Your task to perform on an android device: Open calendar and show me the second week of next month Image 0: 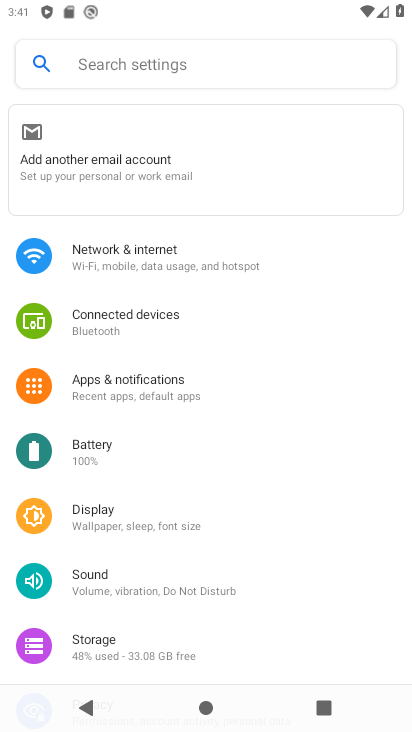
Step 0: press home button
Your task to perform on an android device: Open calendar and show me the second week of next month Image 1: 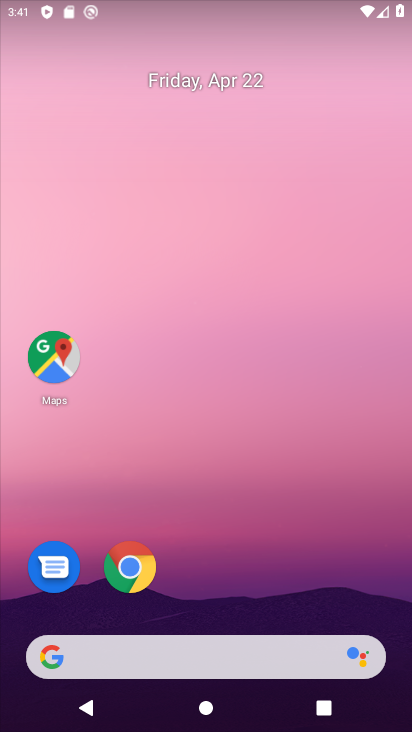
Step 1: drag from (332, 605) to (224, 198)
Your task to perform on an android device: Open calendar and show me the second week of next month Image 2: 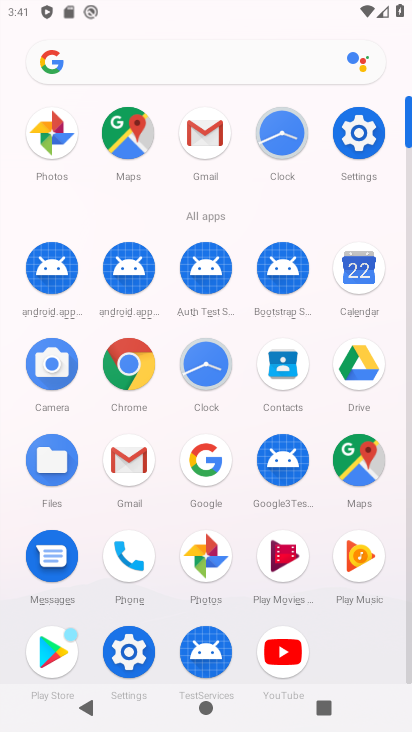
Step 2: click (345, 290)
Your task to perform on an android device: Open calendar and show me the second week of next month Image 3: 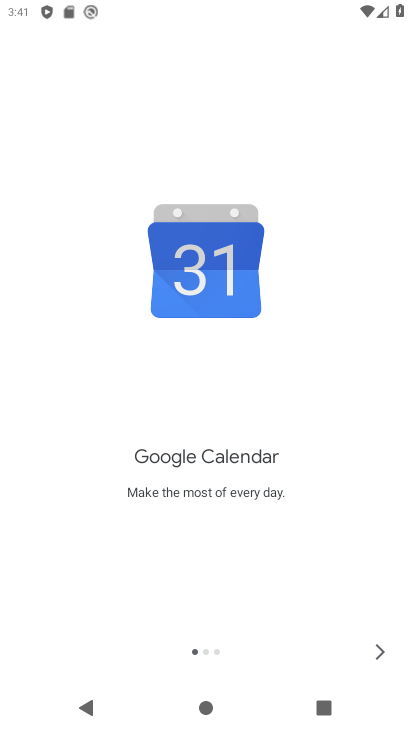
Step 3: click (380, 657)
Your task to perform on an android device: Open calendar and show me the second week of next month Image 4: 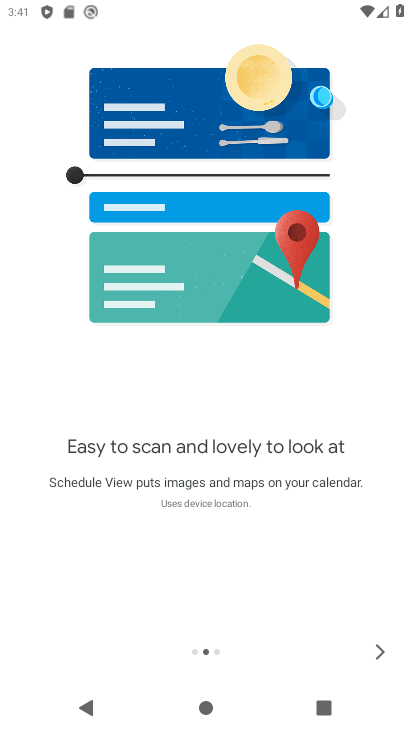
Step 4: click (380, 661)
Your task to perform on an android device: Open calendar and show me the second week of next month Image 5: 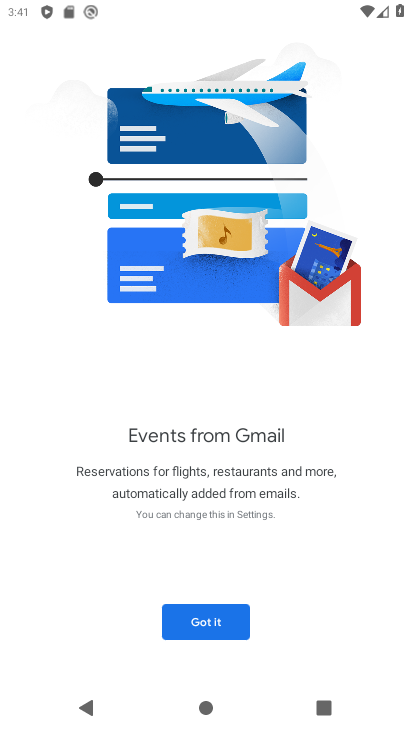
Step 5: click (225, 619)
Your task to perform on an android device: Open calendar and show me the second week of next month Image 6: 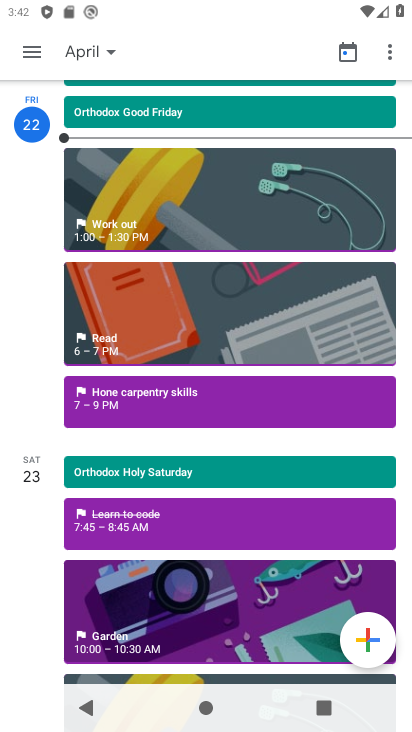
Step 6: click (90, 52)
Your task to perform on an android device: Open calendar and show me the second week of next month Image 7: 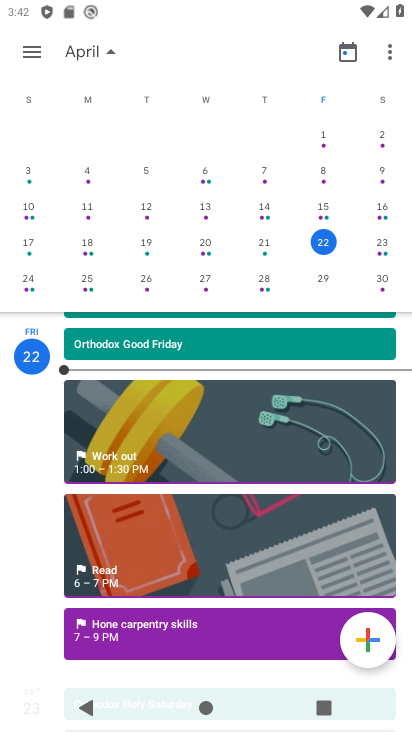
Step 7: click (33, 41)
Your task to perform on an android device: Open calendar and show me the second week of next month Image 8: 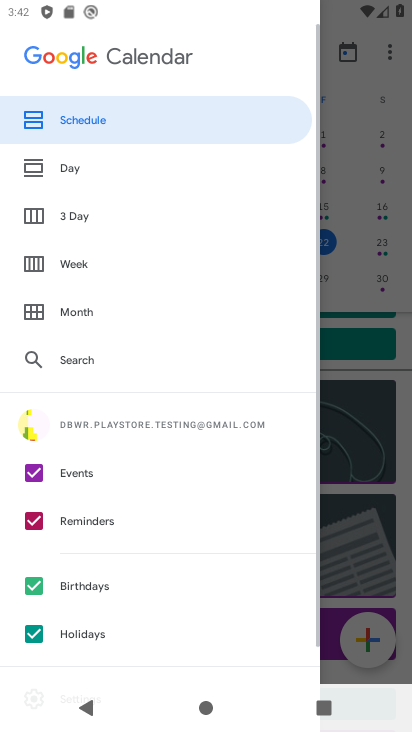
Step 8: click (102, 271)
Your task to perform on an android device: Open calendar and show me the second week of next month Image 9: 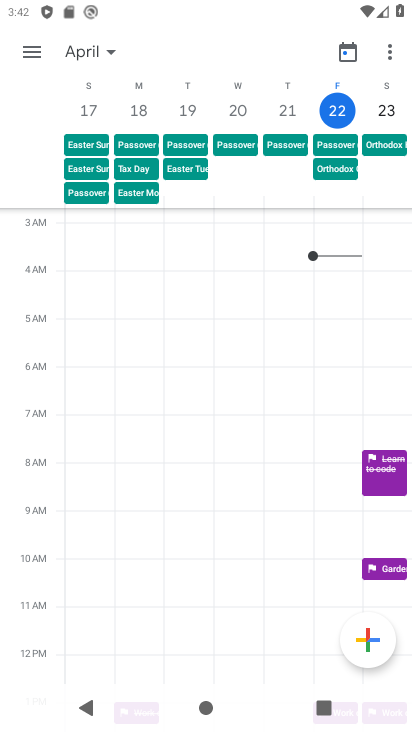
Step 9: click (110, 49)
Your task to perform on an android device: Open calendar and show me the second week of next month Image 10: 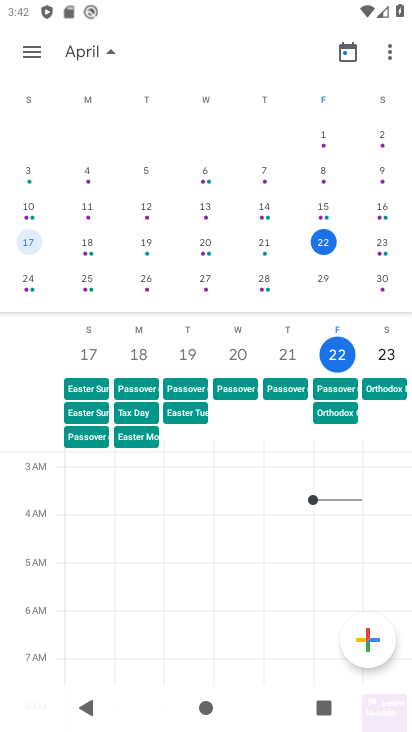
Step 10: drag from (395, 187) to (34, 205)
Your task to perform on an android device: Open calendar and show me the second week of next month Image 11: 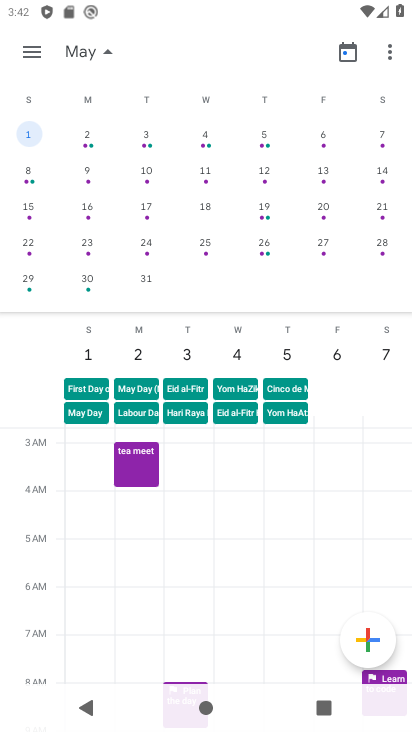
Step 11: click (148, 173)
Your task to perform on an android device: Open calendar and show me the second week of next month Image 12: 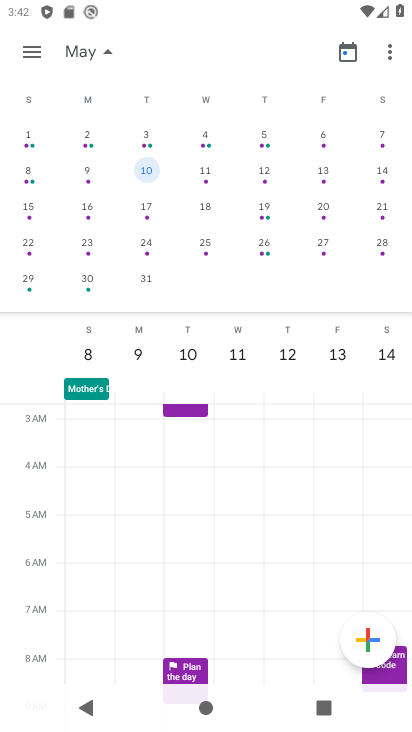
Step 12: task complete